Your task to perform on an android device: Check the weather Image 0: 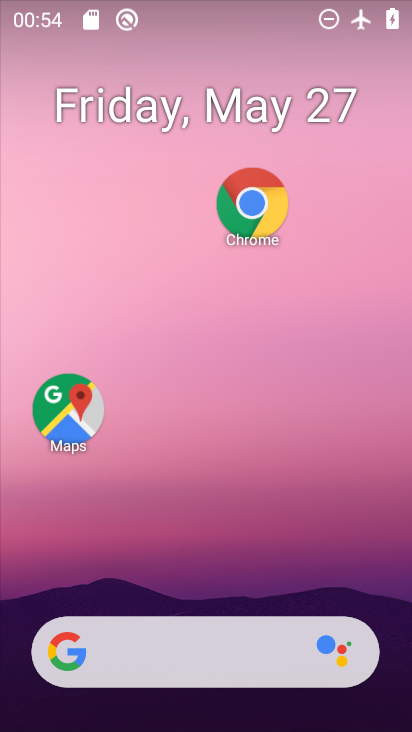
Step 0: drag from (184, 507) to (242, 69)
Your task to perform on an android device: Check the weather Image 1: 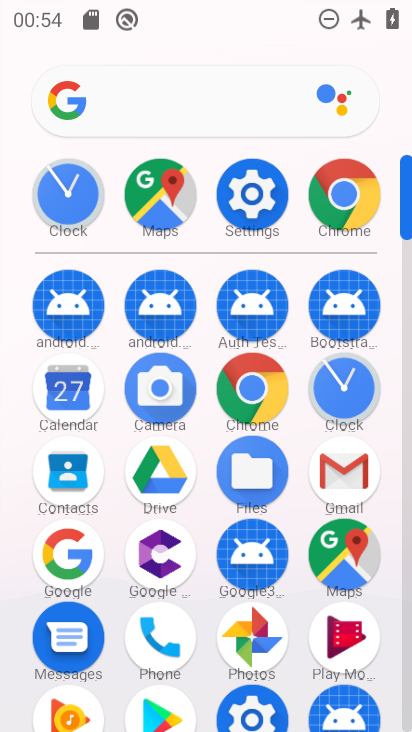
Step 1: click (224, 117)
Your task to perform on an android device: Check the weather Image 2: 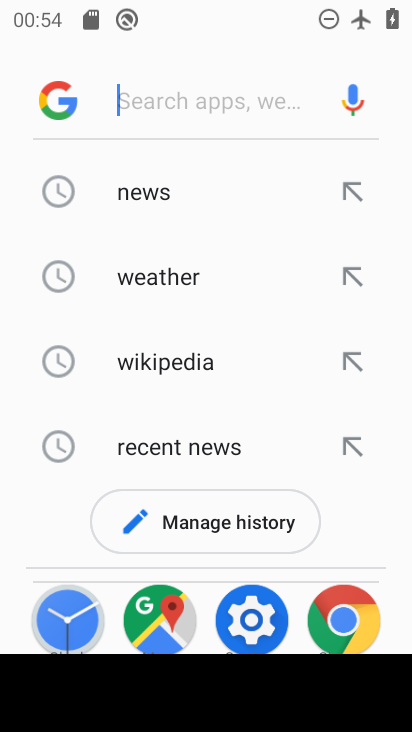
Step 2: click (256, 282)
Your task to perform on an android device: Check the weather Image 3: 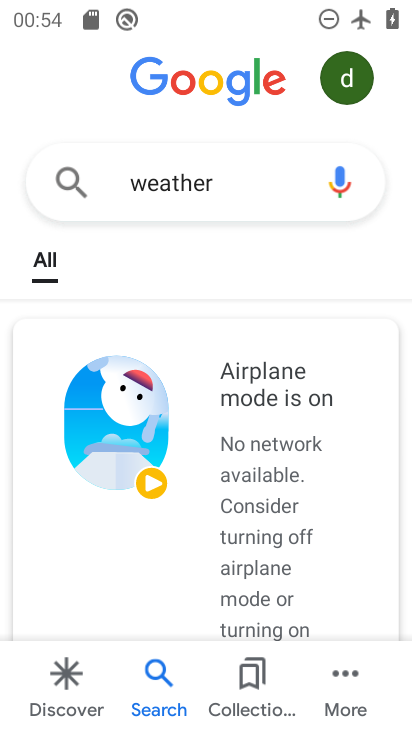
Step 3: task complete